Your task to perform on an android device: all mails in gmail Image 0: 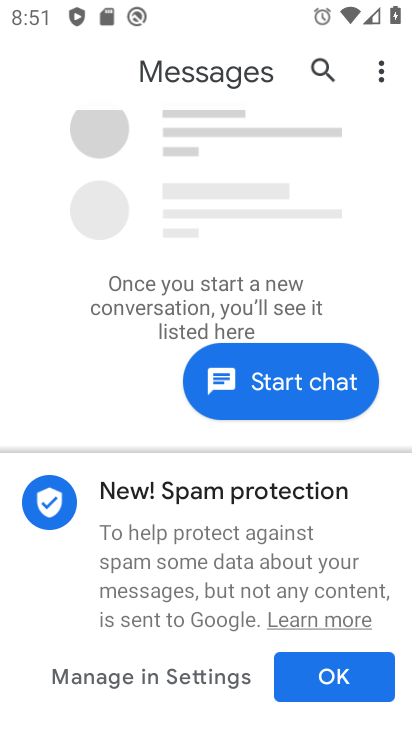
Step 0: press home button
Your task to perform on an android device: all mails in gmail Image 1: 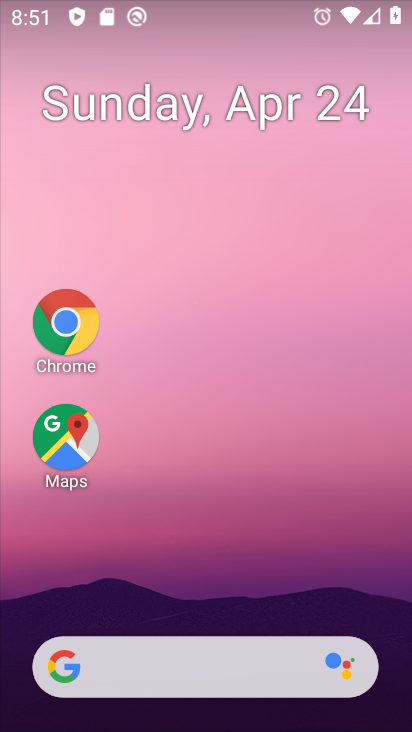
Step 1: drag from (208, 571) to (115, 110)
Your task to perform on an android device: all mails in gmail Image 2: 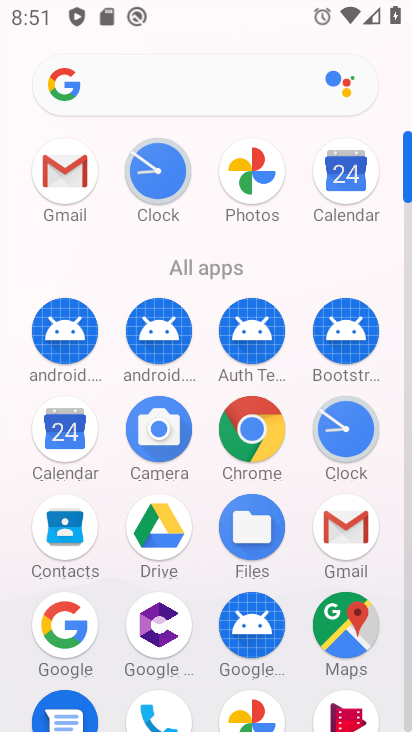
Step 2: click (61, 176)
Your task to perform on an android device: all mails in gmail Image 3: 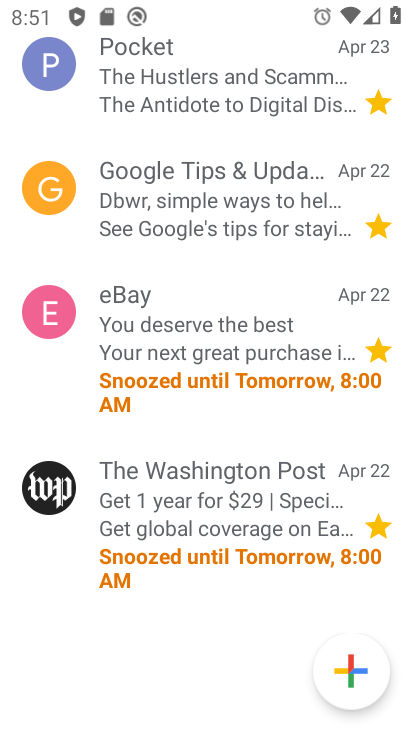
Step 3: task complete